Your task to perform on an android device: find photos in the google photos app Image 0: 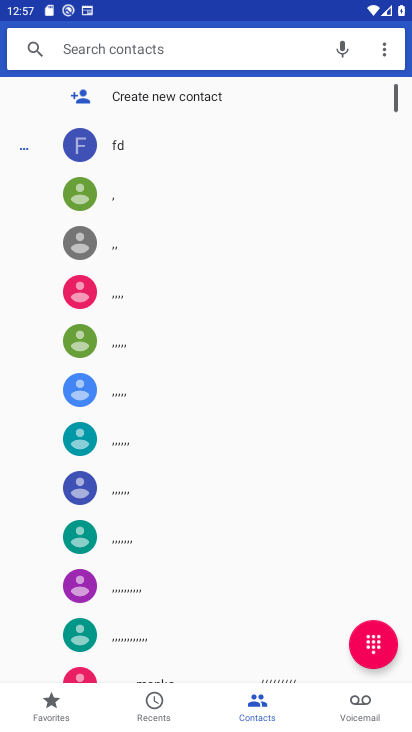
Step 0: press home button
Your task to perform on an android device: find photos in the google photos app Image 1: 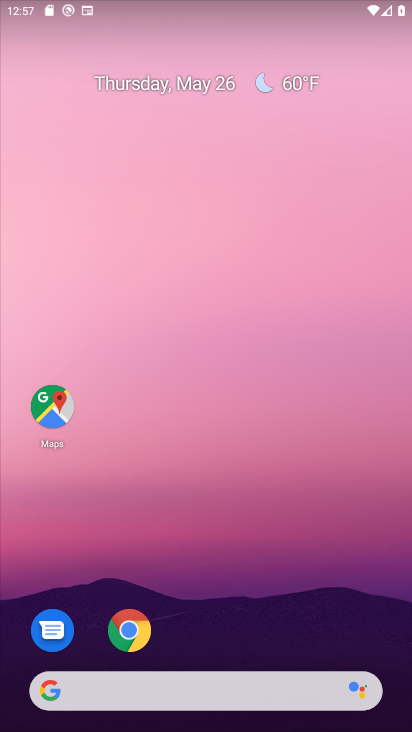
Step 1: drag from (307, 567) to (303, 74)
Your task to perform on an android device: find photos in the google photos app Image 2: 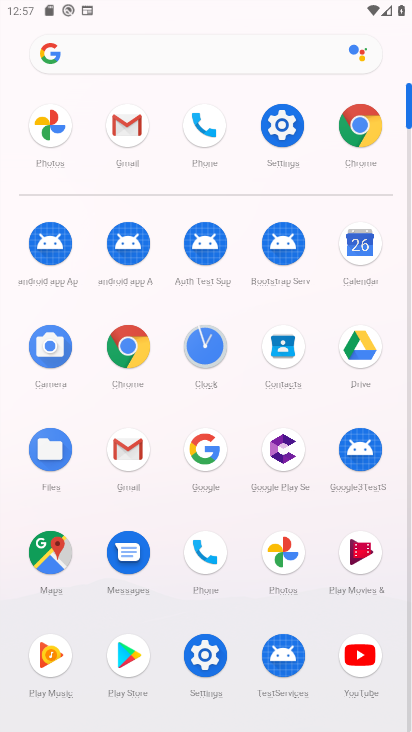
Step 2: click (280, 559)
Your task to perform on an android device: find photos in the google photos app Image 3: 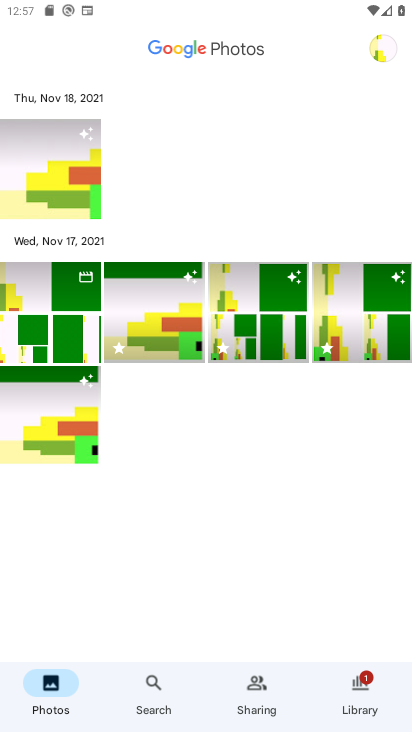
Step 3: click (62, 209)
Your task to perform on an android device: find photos in the google photos app Image 4: 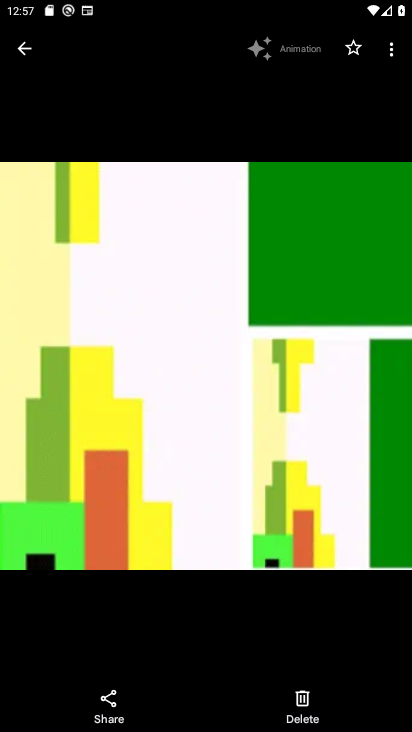
Step 4: task complete